Your task to perform on an android device: Go to network settings Image 0: 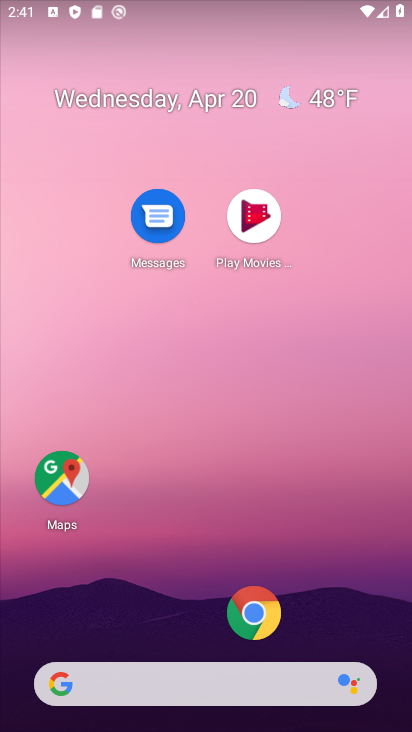
Step 0: drag from (237, 533) to (222, 0)
Your task to perform on an android device: Go to network settings Image 1: 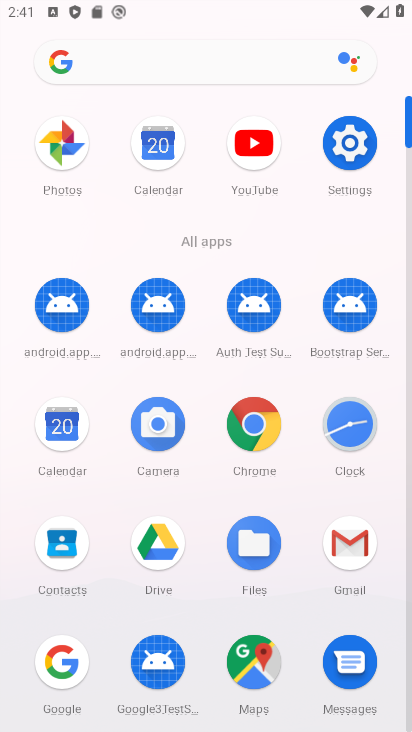
Step 1: click (341, 258)
Your task to perform on an android device: Go to network settings Image 2: 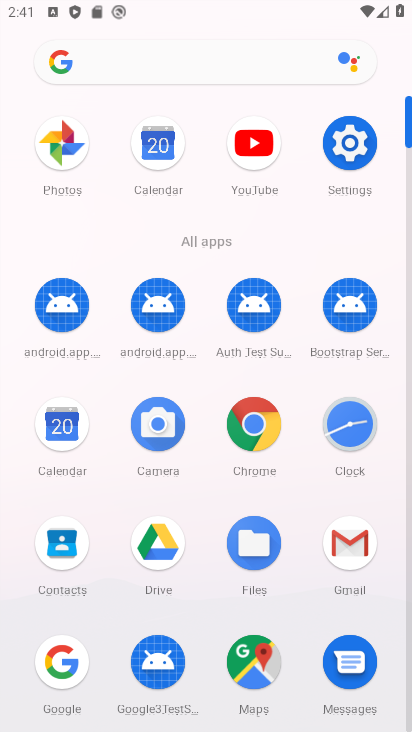
Step 2: click (360, 164)
Your task to perform on an android device: Go to network settings Image 3: 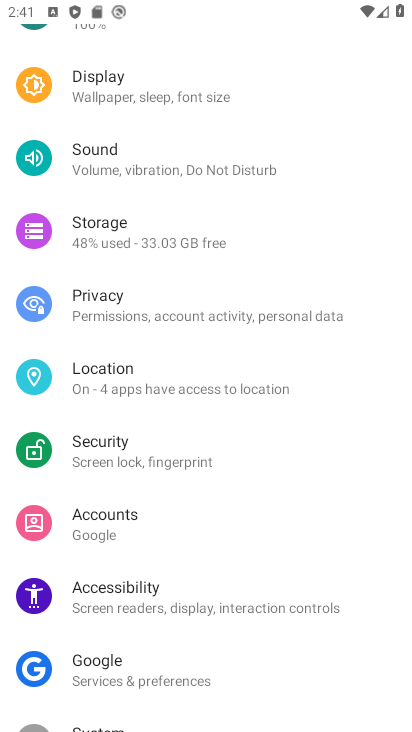
Step 3: drag from (185, 193) to (235, 558)
Your task to perform on an android device: Go to network settings Image 4: 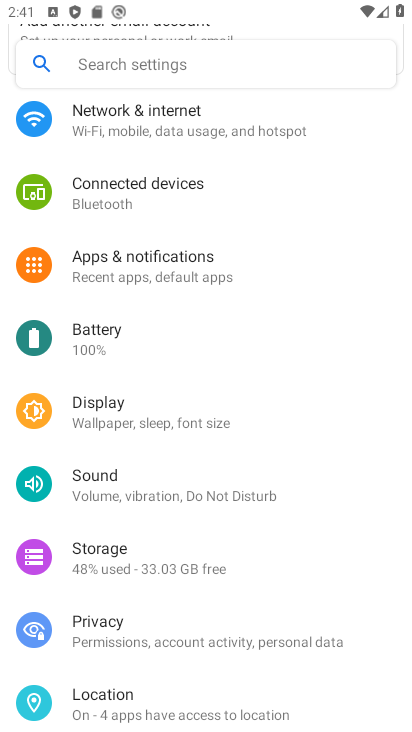
Step 4: click (187, 133)
Your task to perform on an android device: Go to network settings Image 5: 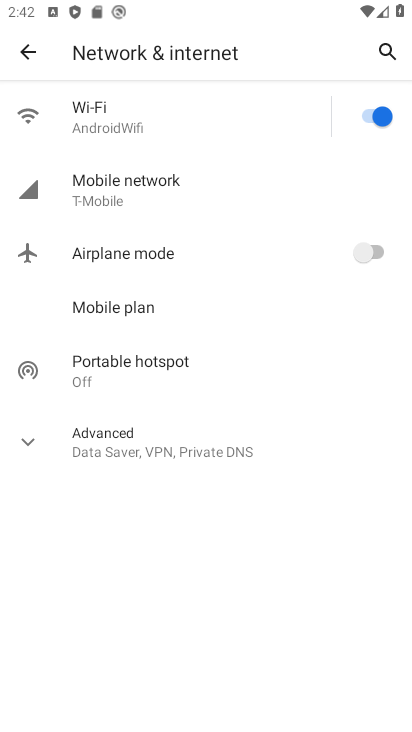
Step 5: task complete